Your task to perform on an android device: open wifi settings Image 0: 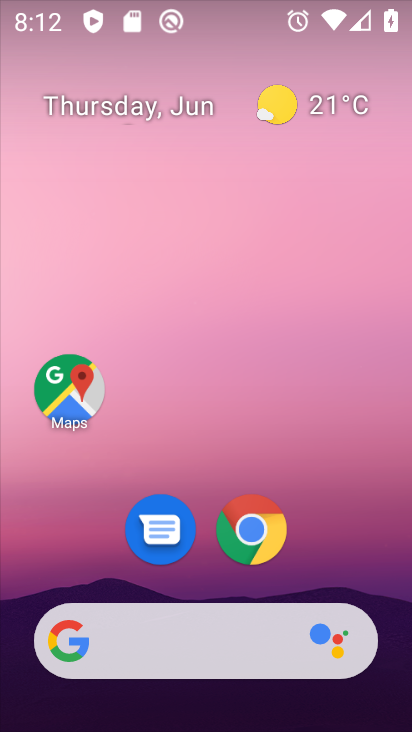
Step 0: drag from (389, 672) to (356, 58)
Your task to perform on an android device: open wifi settings Image 1: 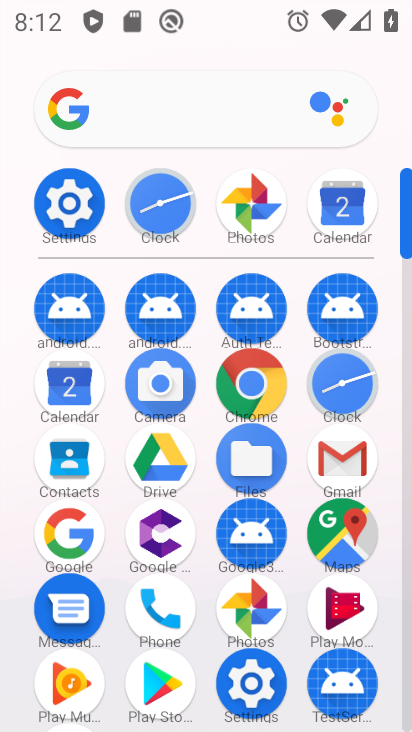
Step 1: click (47, 192)
Your task to perform on an android device: open wifi settings Image 2: 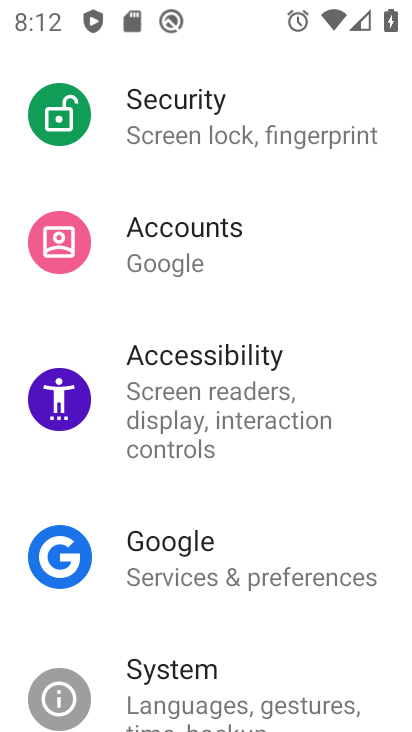
Step 2: drag from (300, 110) to (314, 482)
Your task to perform on an android device: open wifi settings Image 3: 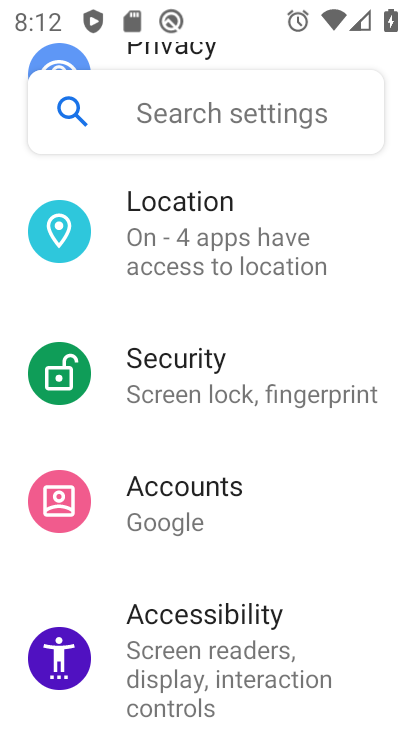
Step 3: drag from (298, 218) to (308, 631)
Your task to perform on an android device: open wifi settings Image 4: 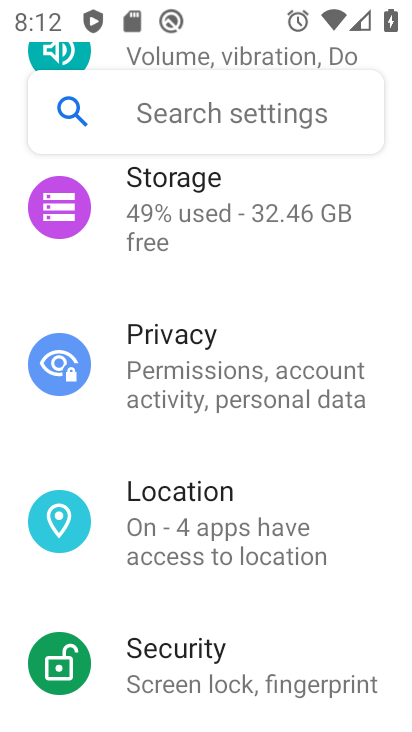
Step 4: drag from (318, 200) to (346, 705)
Your task to perform on an android device: open wifi settings Image 5: 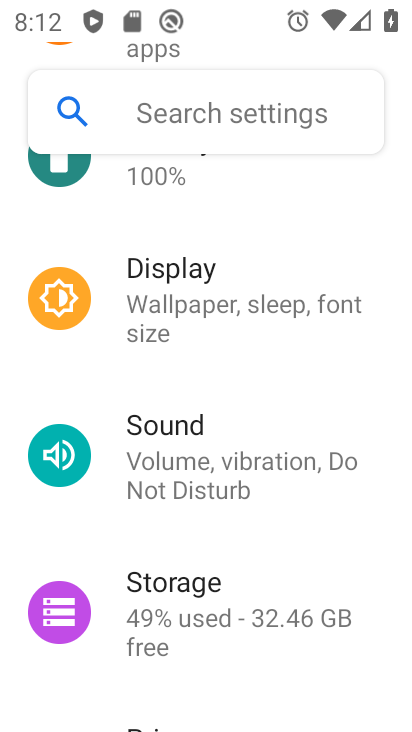
Step 5: drag from (299, 233) to (358, 695)
Your task to perform on an android device: open wifi settings Image 6: 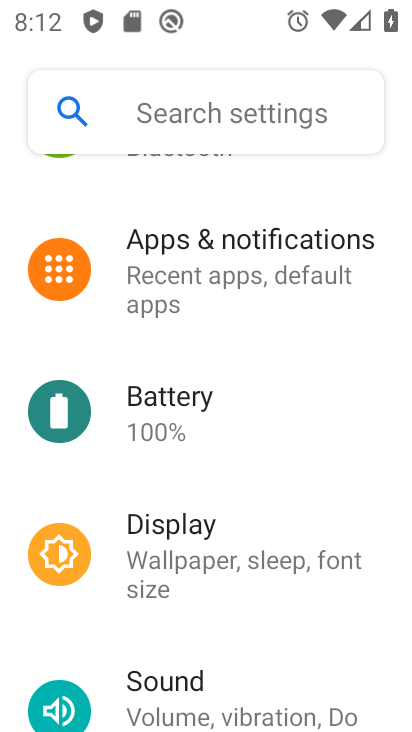
Step 6: drag from (368, 172) to (404, 682)
Your task to perform on an android device: open wifi settings Image 7: 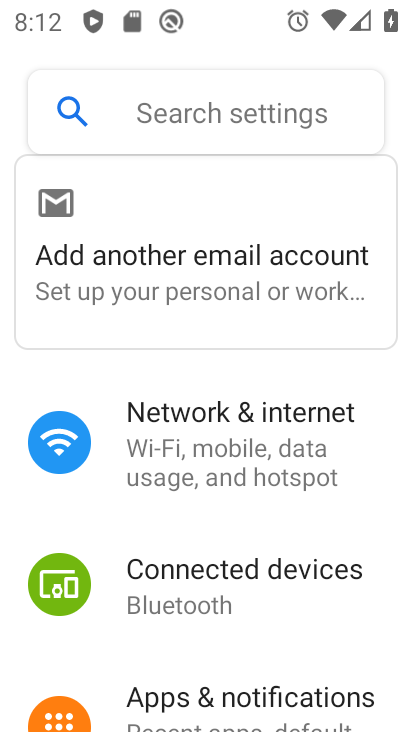
Step 7: click (230, 419)
Your task to perform on an android device: open wifi settings Image 8: 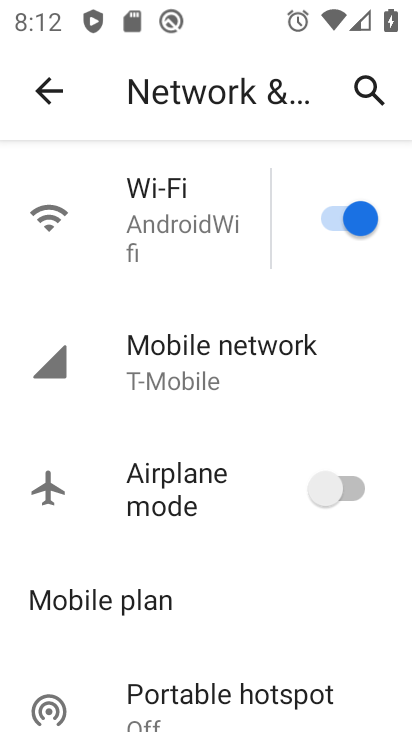
Step 8: click (172, 218)
Your task to perform on an android device: open wifi settings Image 9: 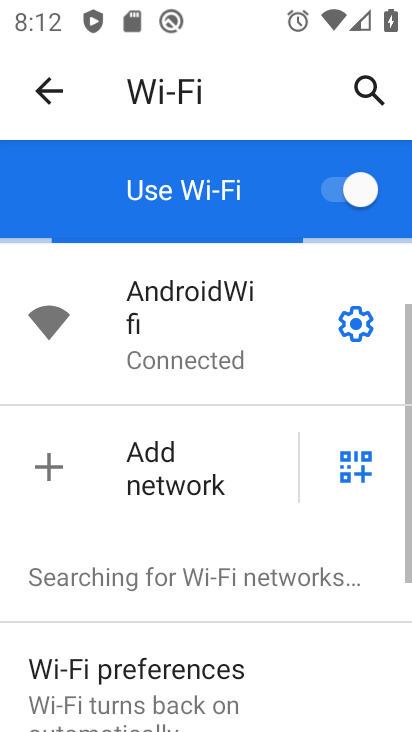
Step 9: click (352, 332)
Your task to perform on an android device: open wifi settings Image 10: 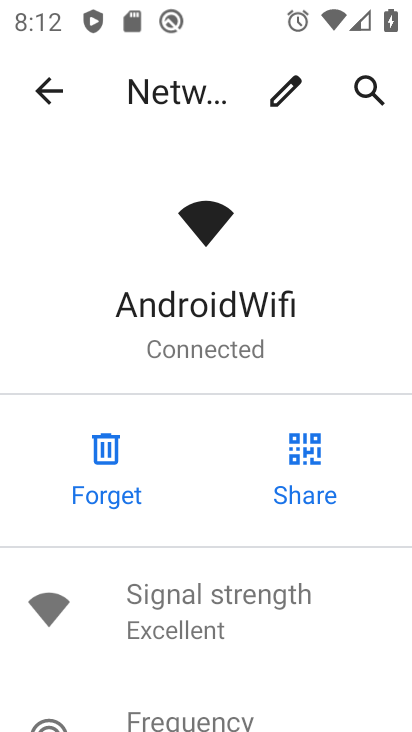
Step 10: drag from (285, 702) to (266, 282)
Your task to perform on an android device: open wifi settings Image 11: 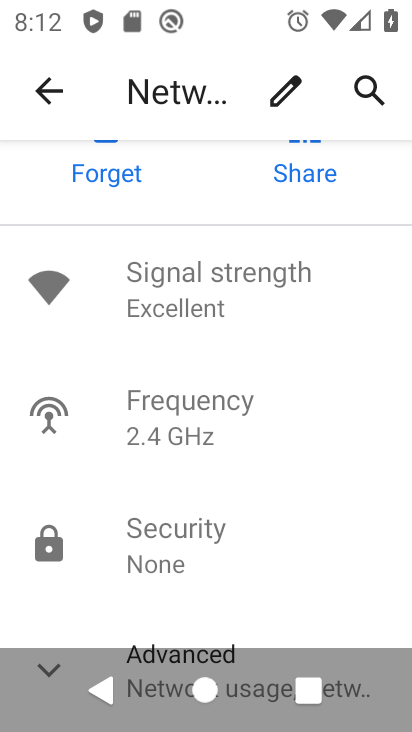
Step 11: drag from (300, 620) to (307, 343)
Your task to perform on an android device: open wifi settings Image 12: 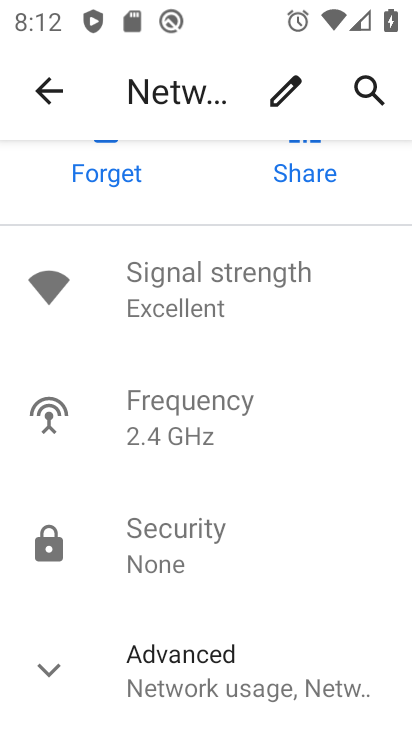
Step 12: drag from (263, 642) to (288, 407)
Your task to perform on an android device: open wifi settings Image 13: 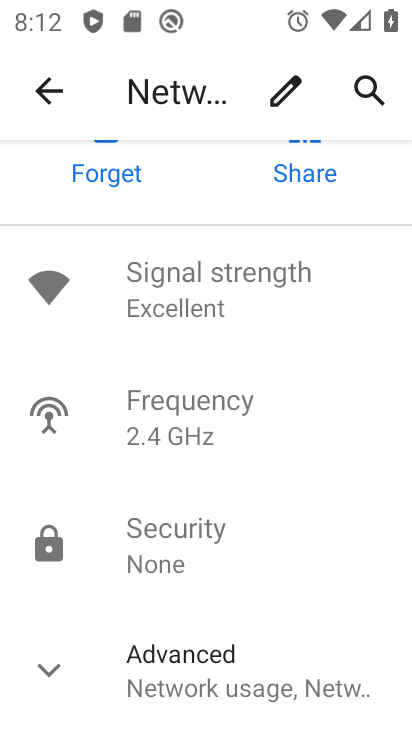
Step 13: click (45, 672)
Your task to perform on an android device: open wifi settings Image 14: 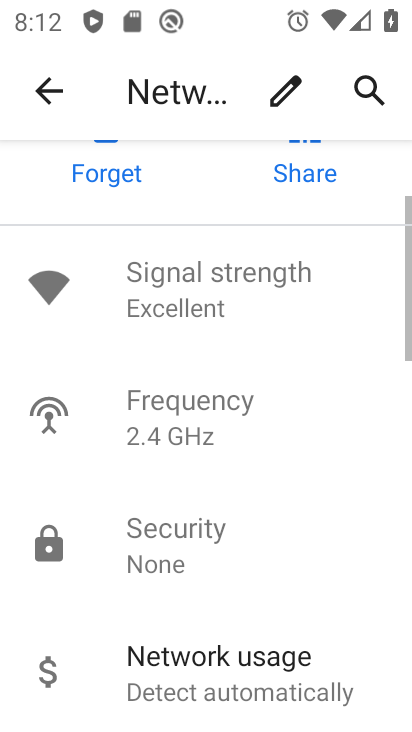
Step 14: task complete